Your task to perform on an android device: Open Google Chrome Image 0: 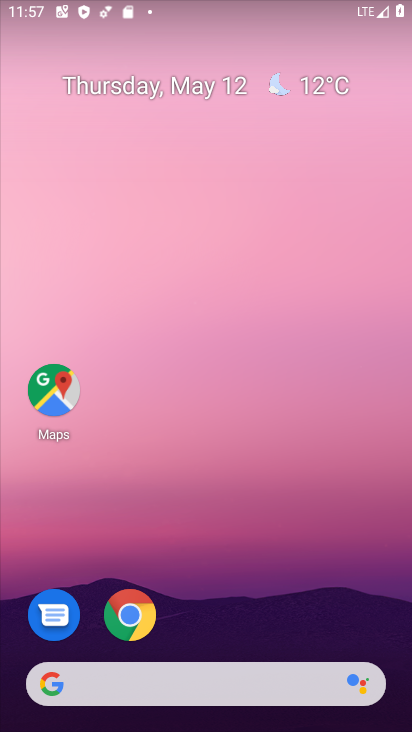
Step 0: click (139, 607)
Your task to perform on an android device: Open Google Chrome Image 1: 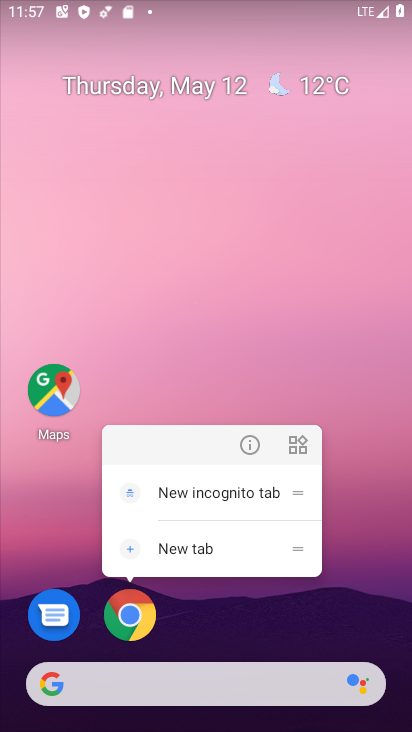
Step 1: click (139, 607)
Your task to perform on an android device: Open Google Chrome Image 2: 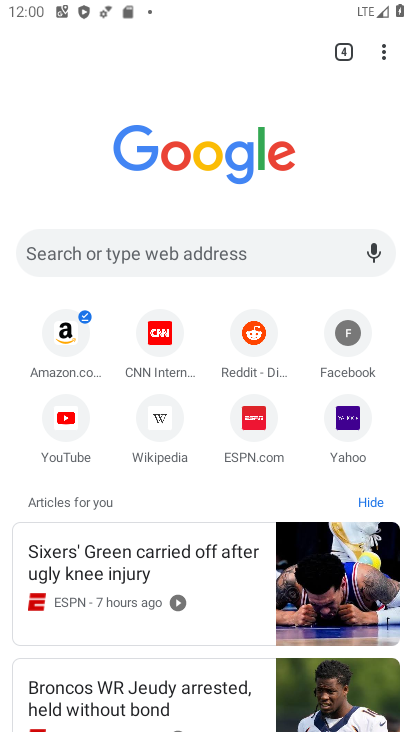
Step 2: press home button
Your task to perform on an android device: Open Google Chrome Image 3: 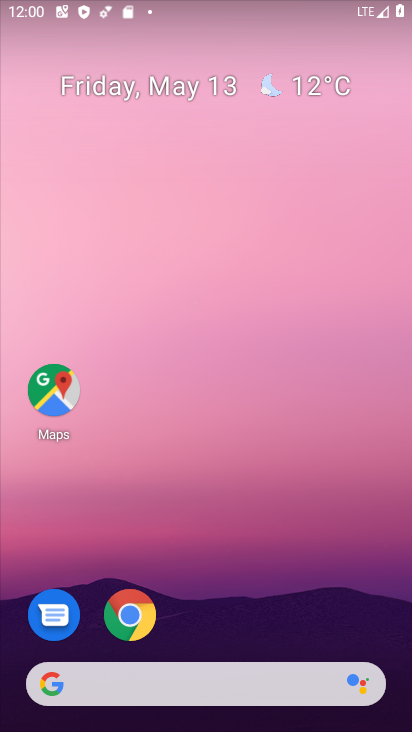
Step 3: click (114, 605)
Your task to perform on an android device: Open Google Chrome Image 4: 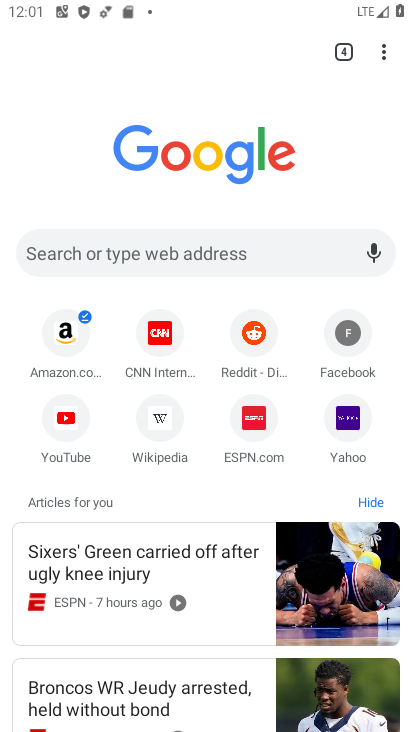
Step 4: task complete